Your task to perform on an android device: Go to wifi settings Image 0: 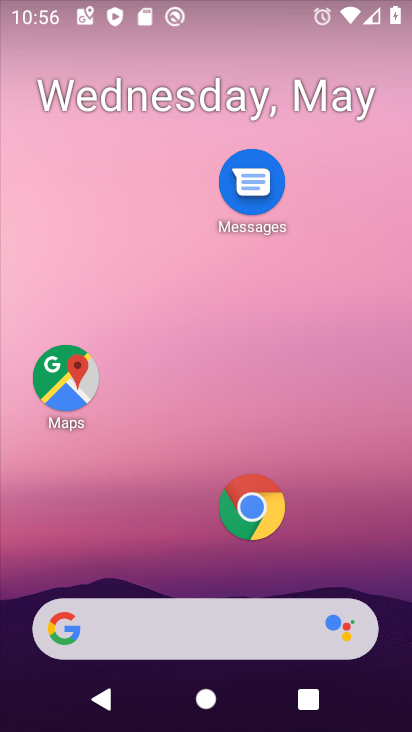
Step 0: press home button
Your task to perform on an android device: Go to wifi settings Image 1: 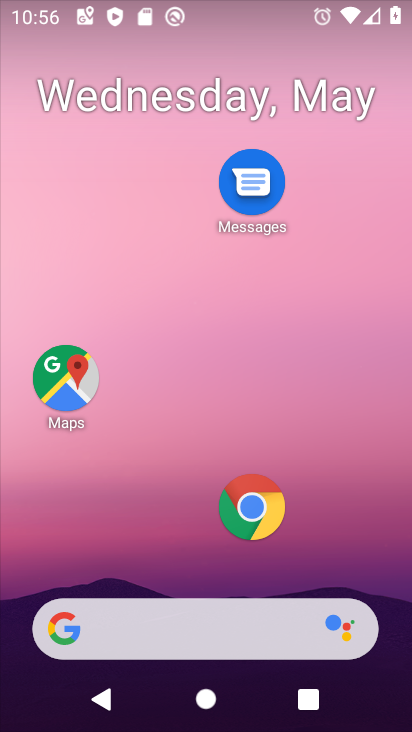
Step 1: drag from (185, 585) to (239, 45)
Your task to perform on an android device: Go to wifi settings Image 2: 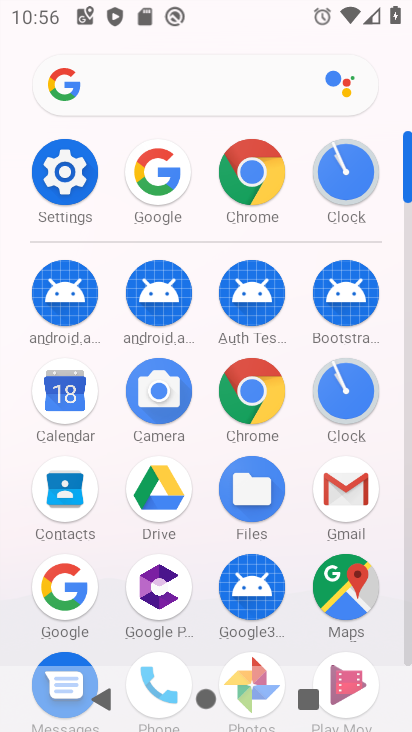
Step 2: click (61, 164)
Your task to perform on an android device: Go to wifi settings Image 3: 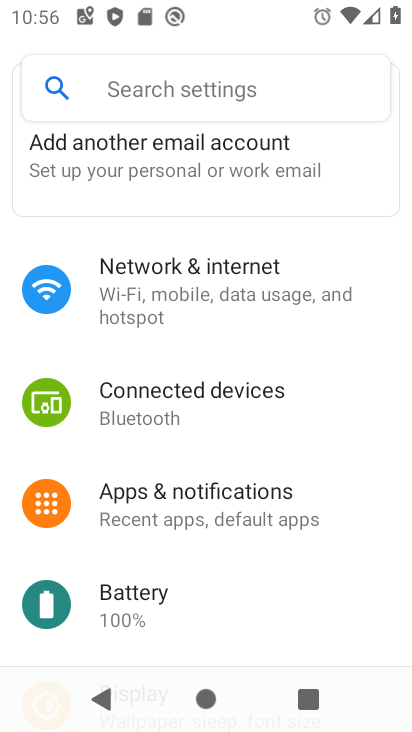
Step 3: click (190, 303)
Your task to perform on an android device: Go to wifi settings Image 4: 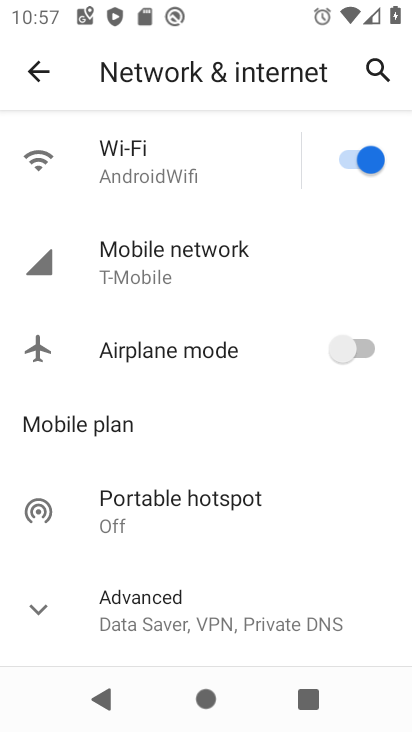
Step 4: drag from (149, 579) to (168, 365)
Your task to perform on an android device: Go to wifi settings Image 5: 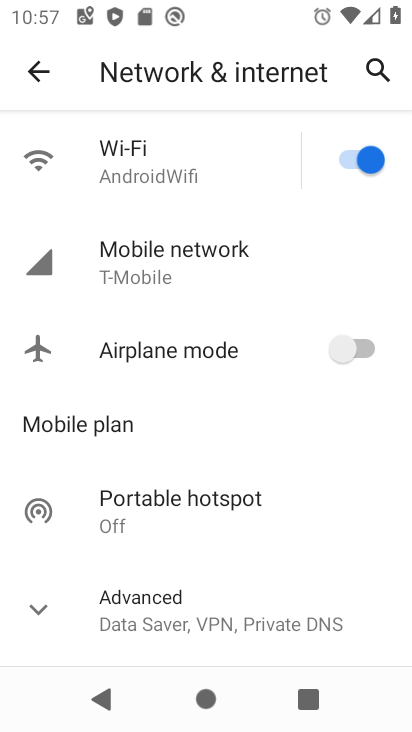
Step 5: click (216, 149)
Your task to perform on an android device: Go to wifi settings Image 6: 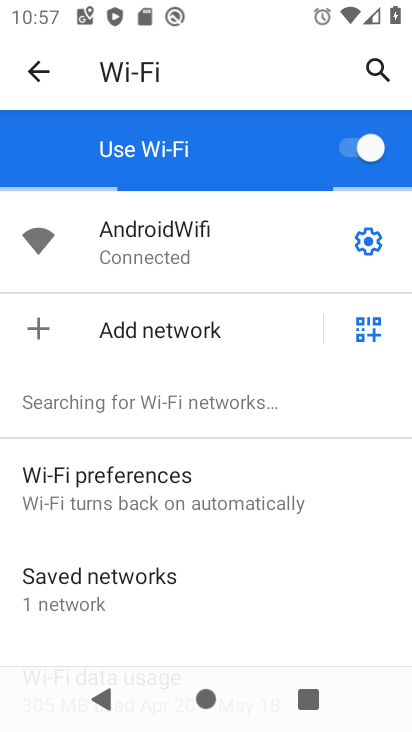
Step 6: task complete